Your task to perform on an android device: Check the news Image 0: 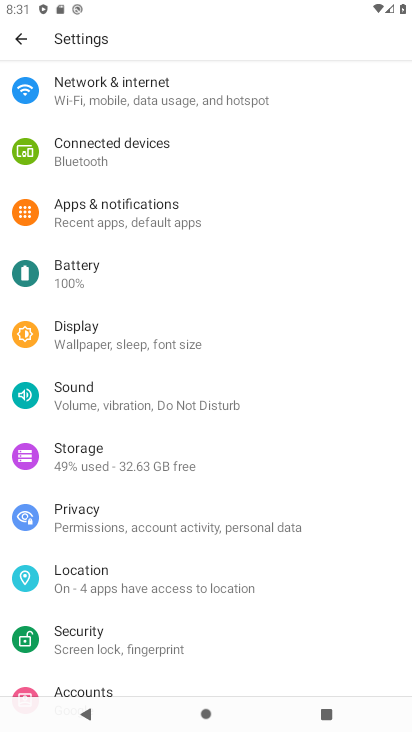
Step 0: press home button
Your task to perform on an android device: Check the news Image 1: 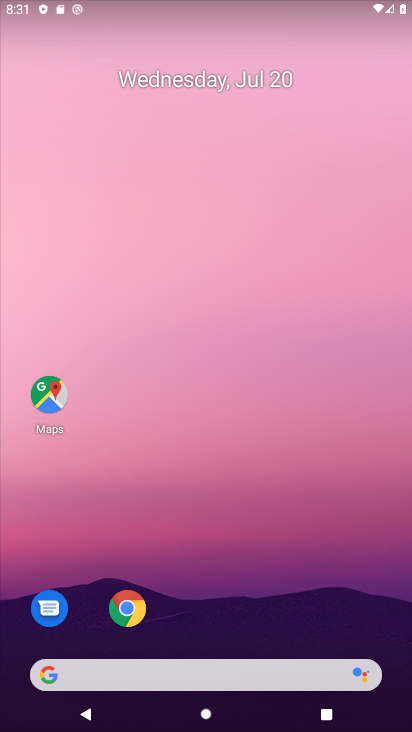
Step 1: click (282, 64)
Your task to perform on an android device: Check the news Image 2: 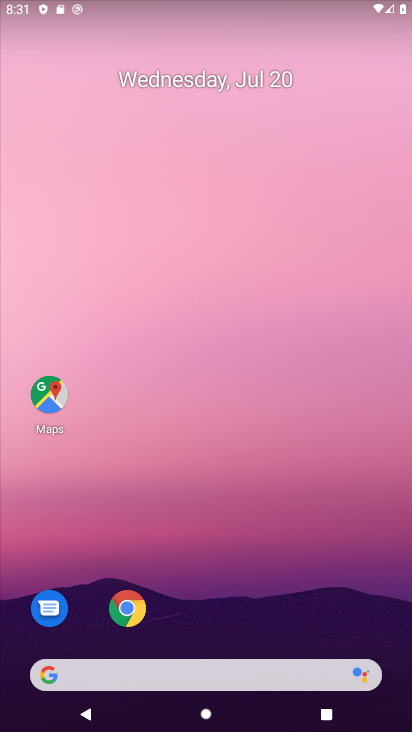
Step 2: drag from (338, 615) to (395, 12)
Your task to perform on an android device: Check the news Image 3: 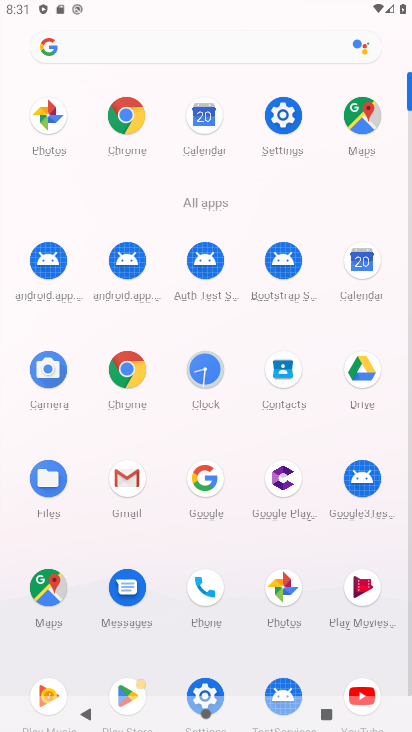
Step 3: click (129, 112)
Your task to perform on an android device: Check the news Image 4: 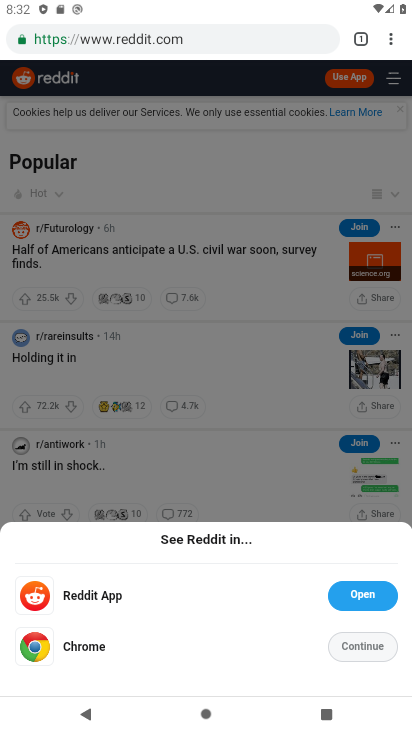
Step 4: task complete